Your task to perform on an android device: Open settings Image 0: 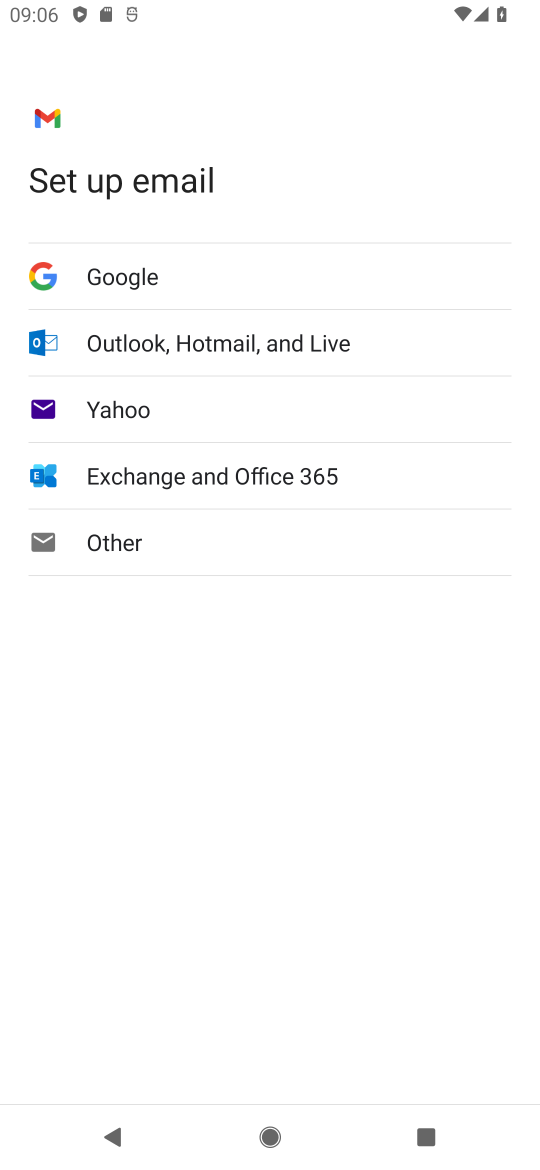
Step 0: press home button
Your task to perform on an android device: Open settings Image 1: 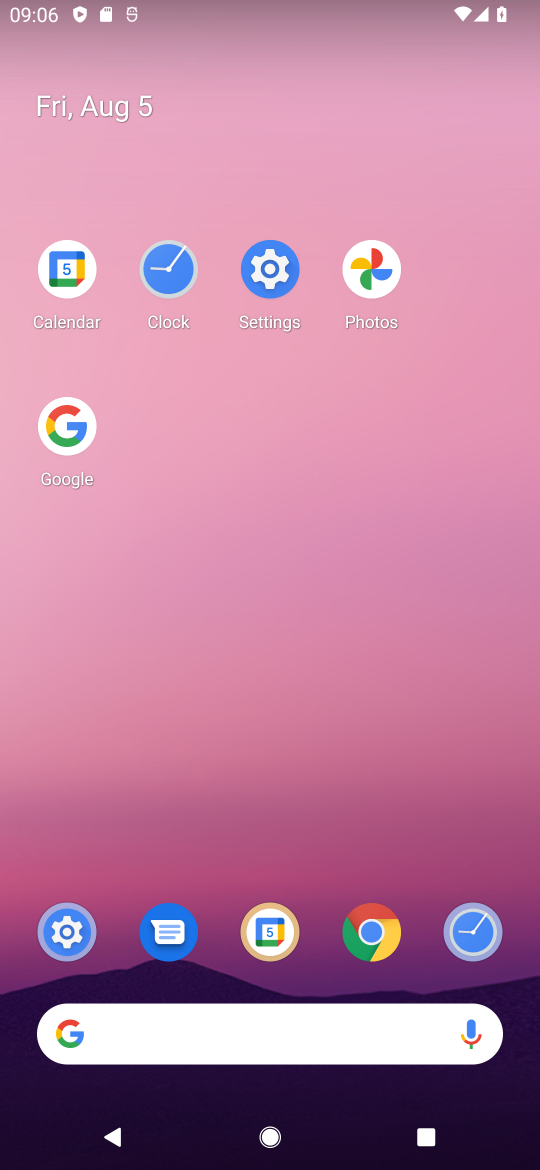
Step 1: click (269, 263)
Your task to perform on an android device: Open settings Image 2: 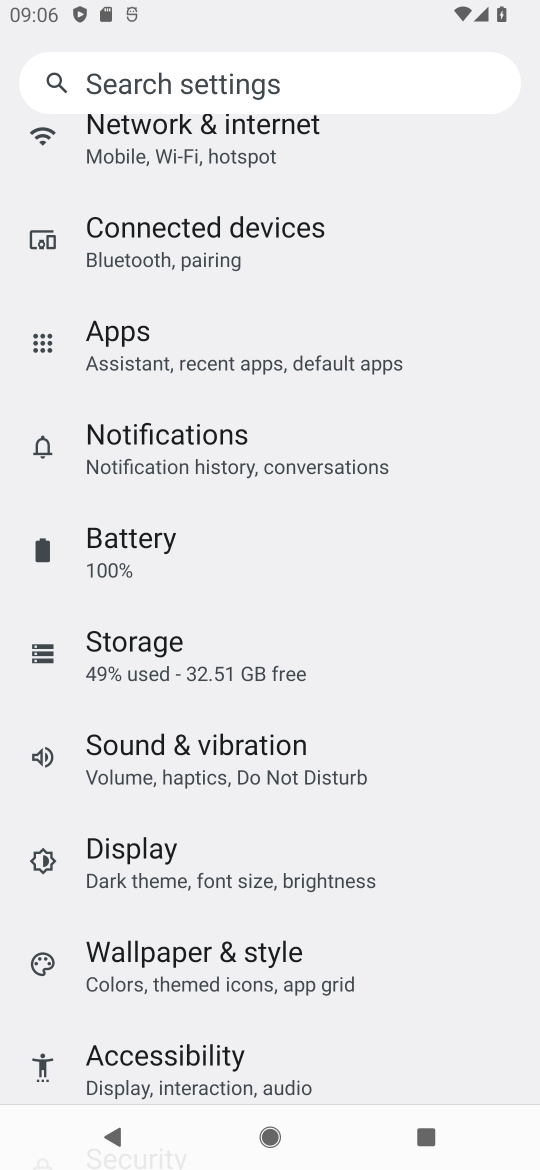
Step 2: task complete